Your task to perform on an android device: Search for Mexican restaurants on Maps Image 0: 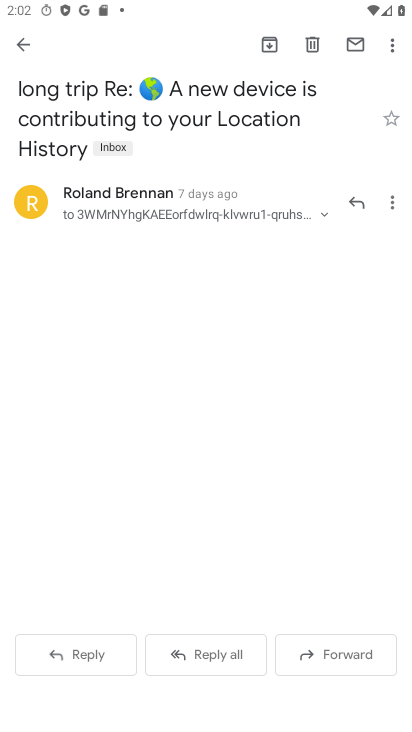
Step 0: press home button
Your task to perform on an android device: Search for Mexican restaurants on Maps Image 1: 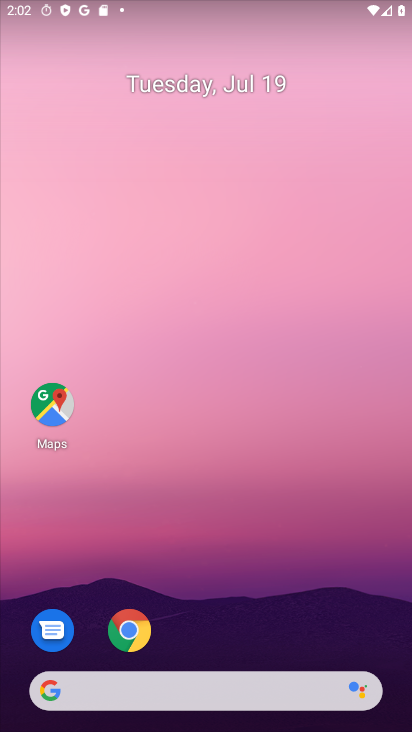
Step 1: click (56, 411)
Your task to perform on an android device: Search for Mexican restaurants on Maps Image 2: 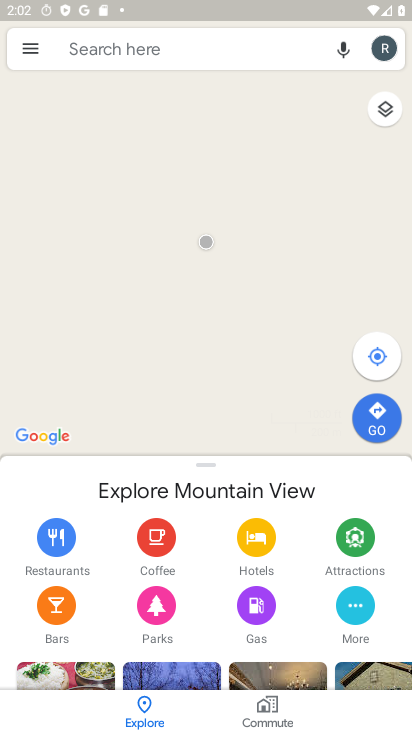
Step 2: click (113, 47)
Your task to perform on an android device: Search for Mexican restaurants on Maps Image 3: 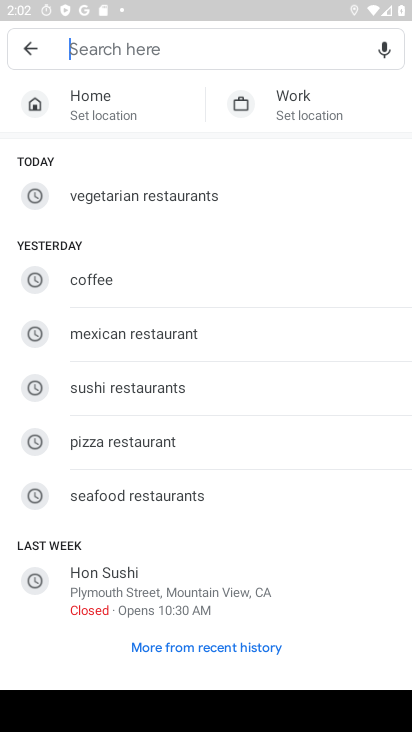
Step 3: type "mexican restaurants"
Your task to perform on an android device: Search for Mexican restaurants on Maps Image 4: 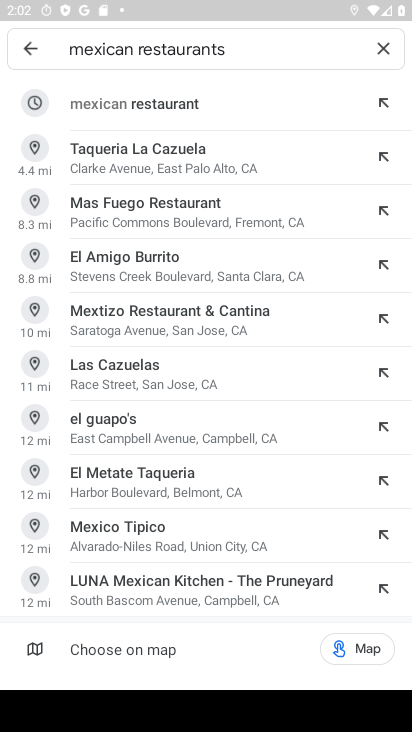
Step 4: click (223, 90)
Your task to perform on an android device: Search for Mexican restaurants on Maps Image 5: 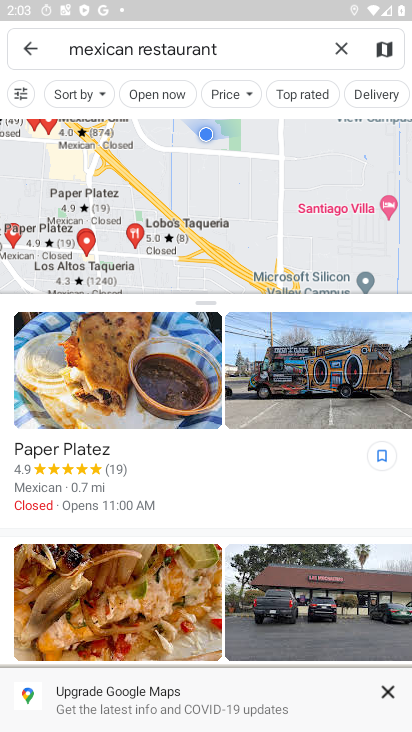
Step 5: task complete